Your task to perform on an android device: search for starred emails in the gmail app Image 0: 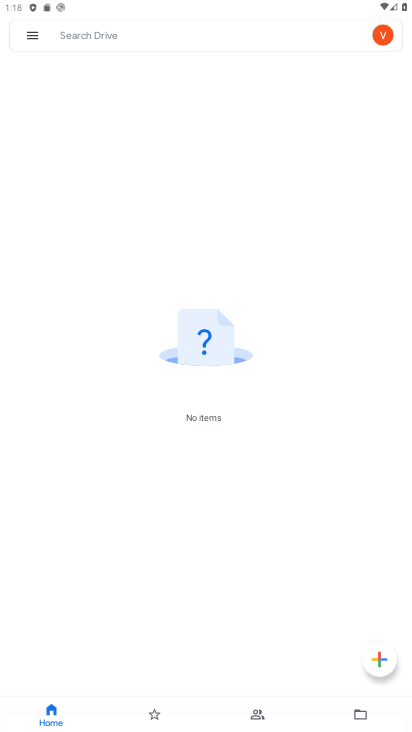
Step 0: press home button
Your task to perform on an android device: search for starred emails in the gmail app Image 1: 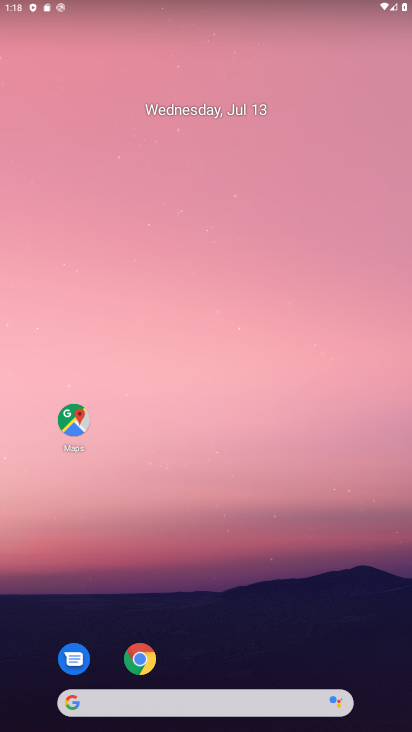
Step 1: drag from (382, 670) to (336, 137)
Your task to perform on an android device: search for starred emails in the gmail app Image 2: 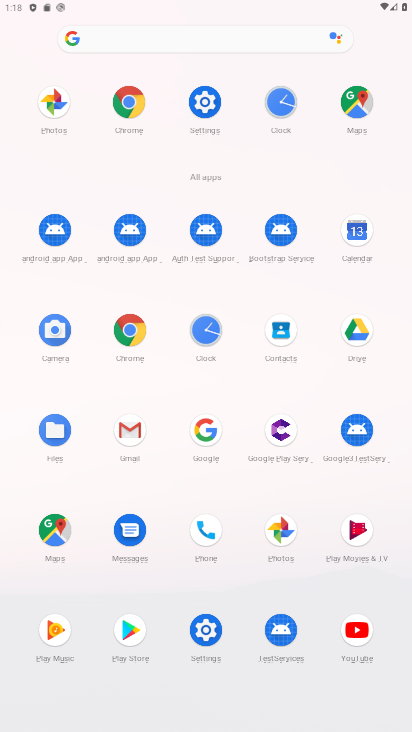
Step 2: click (131, 428)
Your task to perform on an android device: search for starred emails in the gmail app Image 3: 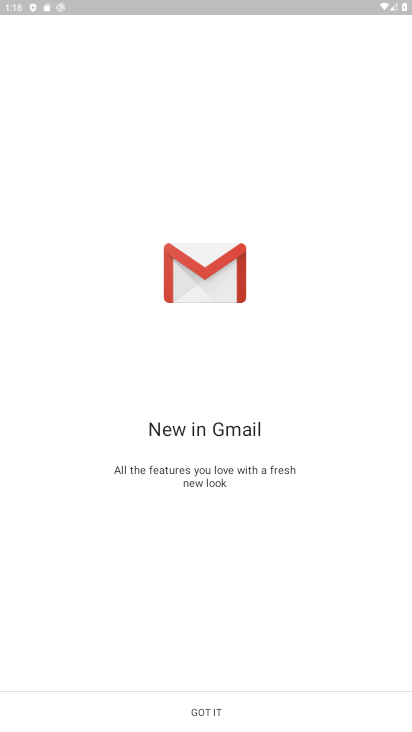
Step 3: click (197, 719)
Your task to perform on an android device: search for starred emails in the gmail app Image 4: 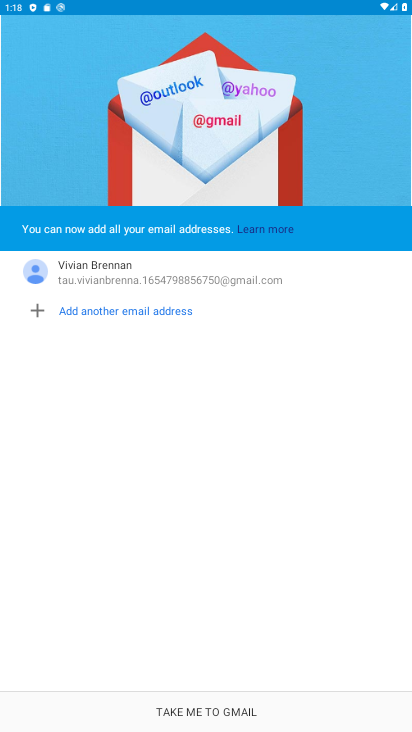
Step 4: click (209, 710)
Your task to perform on an android device: search for starred emails in the gmail app Image 5: 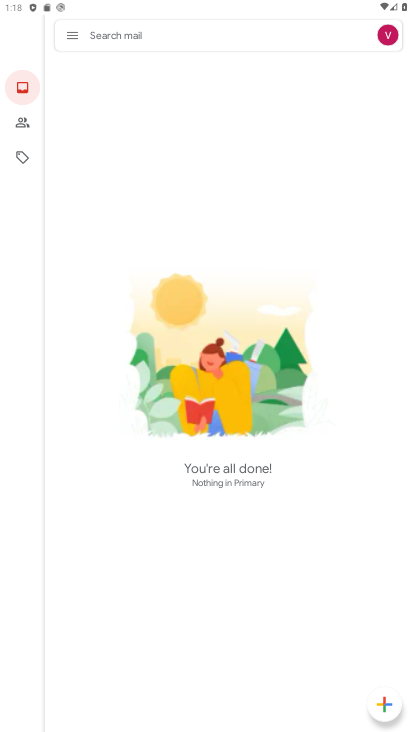
Step 5: click (72, 32)
Your task to perform on an android device: search for starred emails in the gmail app Image 6: 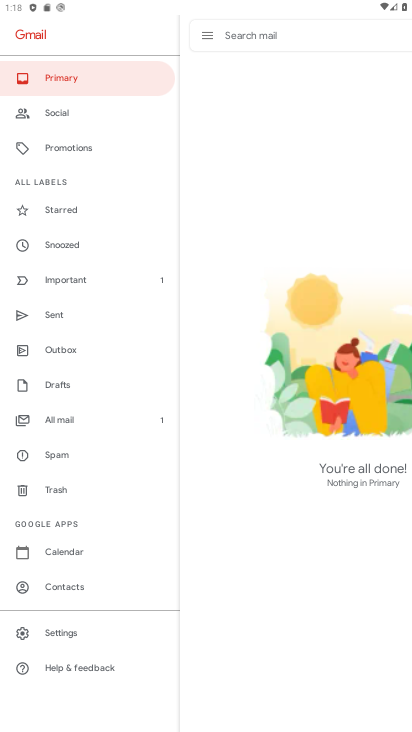
Step 6: click (59, 214)
Your task to perform on an android device: search for starred emails in the gmail app Image 7: 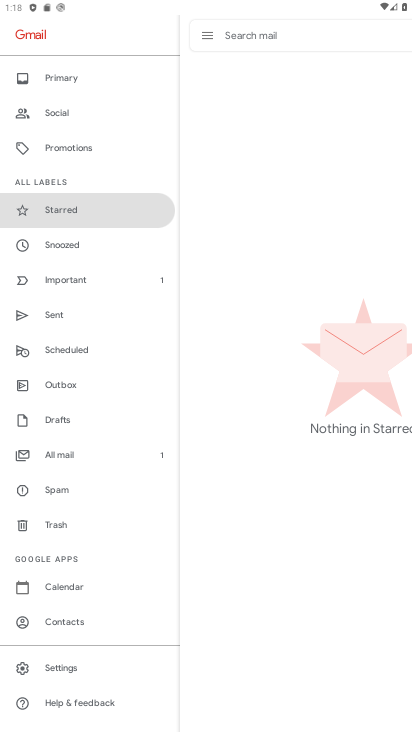
Step 7: task complete